Your task to perform on an android device: Play the last video I watched on Youtube Image 0: 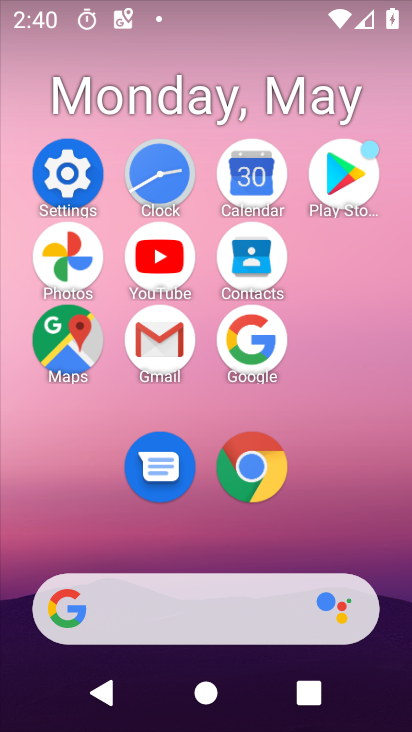
Step 0: click (157, 247)
Your task to perform on an android device: Play the last video I watched on Youtube Image 1: 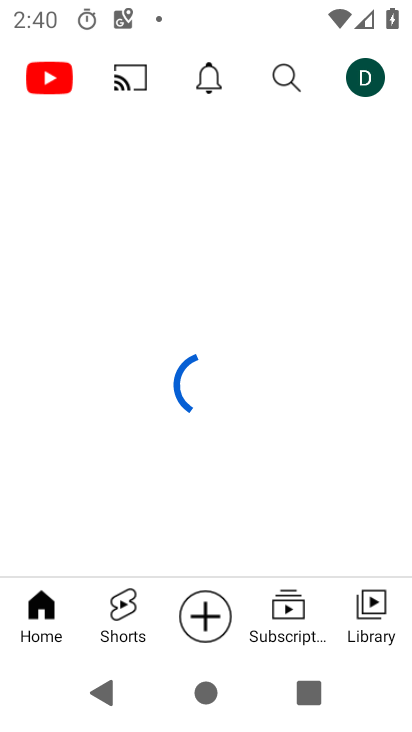
Step 1: click (364, 627)
Your task to perform on an android device: Play the last video I watched on Youtube Image 2: 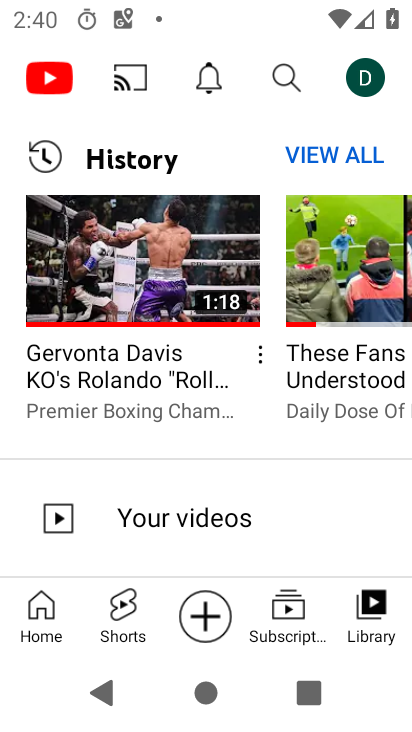
Step 2: task complete